Your task to perform on an android device: turn off improve location accuracy Image 0: 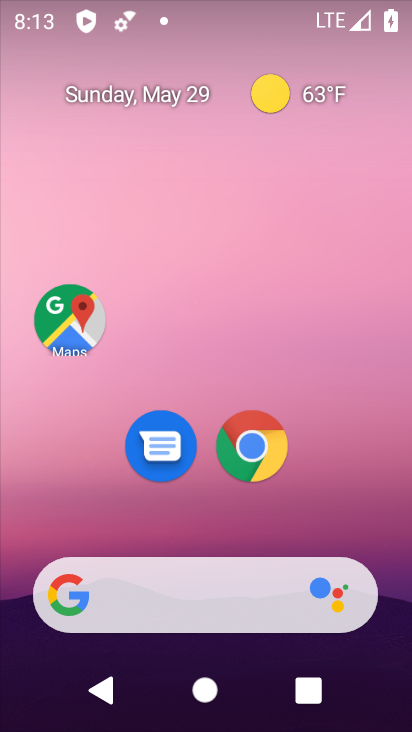
Step 0: drag from (203, 528) to (203, 236)
Your task to perform on an android device: turn off improve location accuracy Image 1: 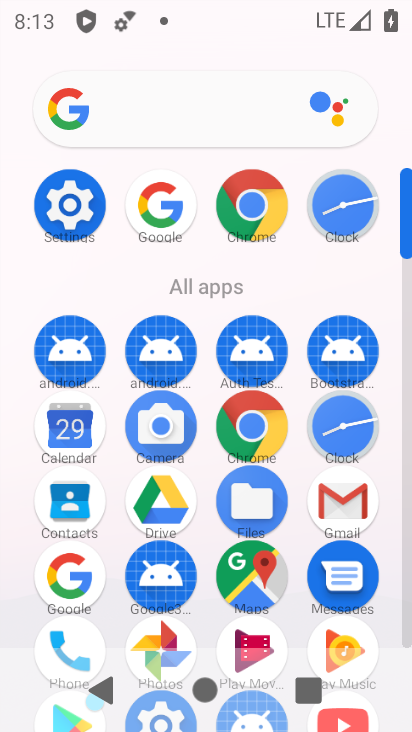
Step 1: click (75, 237)
Your task to perform on an android device: turn off improve location accuracy Image 2: 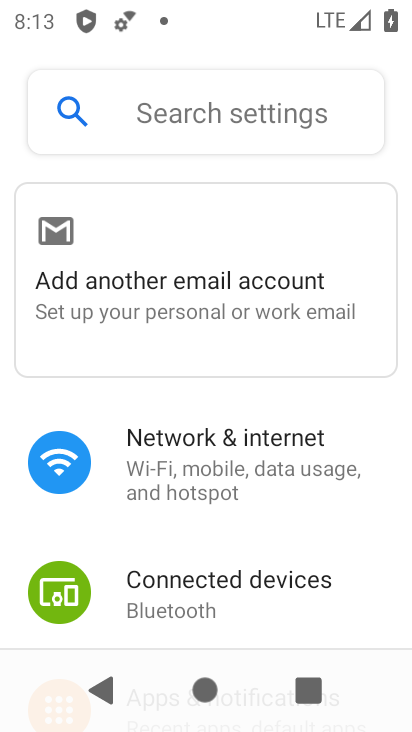
Step 2: drag from (215, 566) to (221, 261)
Your task to perform on an android device: turn off improve location accuracy Image 3: 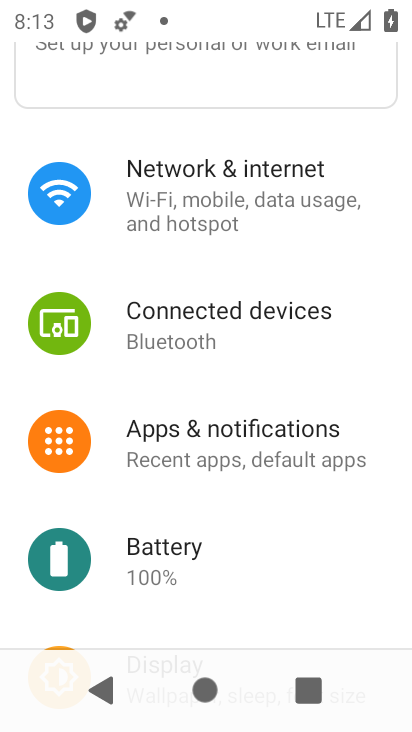
Step 3: drag from (231, 528) to (259, 232)
Your task to perform on an android device: turn off improve location accuracy Image 4: 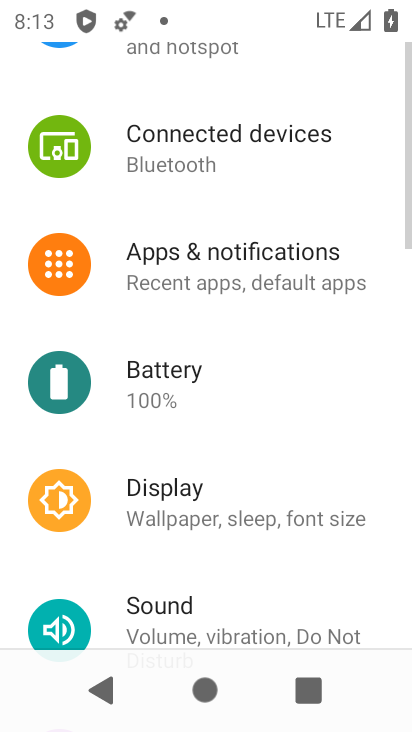
Step 4: drag from (255, 553) to (272, 297)
Your task to perform on an android device: turn off improve location accuracy Image 5: 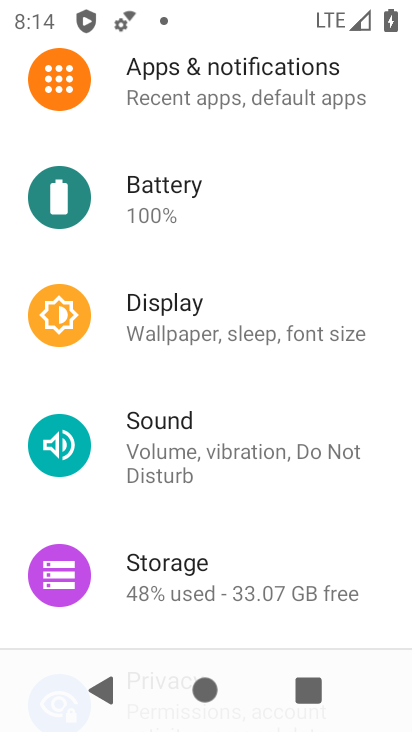
Step 5: drag from (290, 548) to (281, 293)
Your task to perform on an android device: turn off improve location accuracy Image 6: 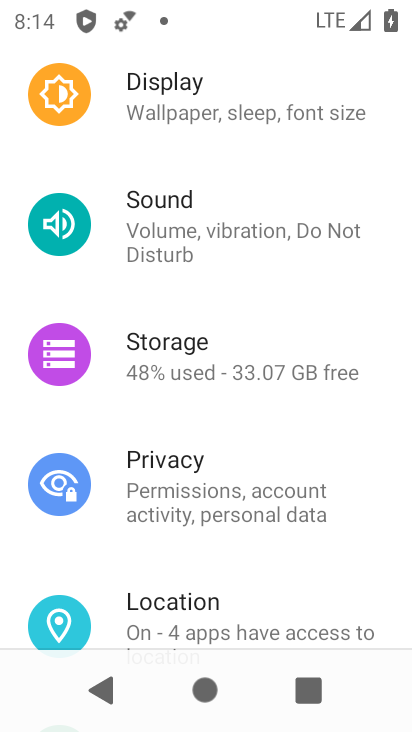
Step 6: drag from (247, 582) to (241, 370)
Your task to perform on an android device: turn off improve location accuracy Image 7: 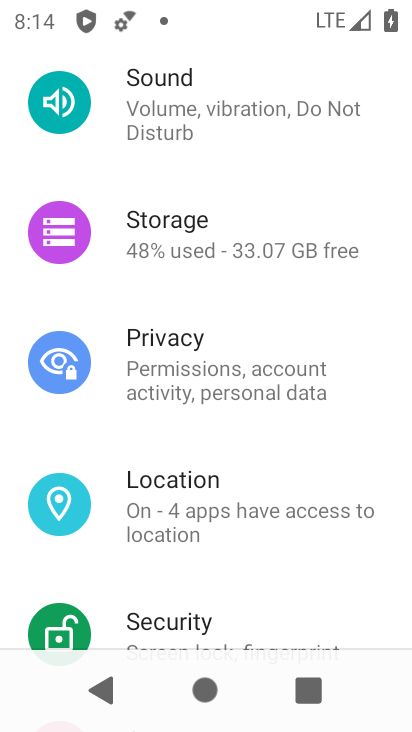
Step 7: click (221, 488)
Your task to perform on an android device: turn off improve location accuracy Image 8: 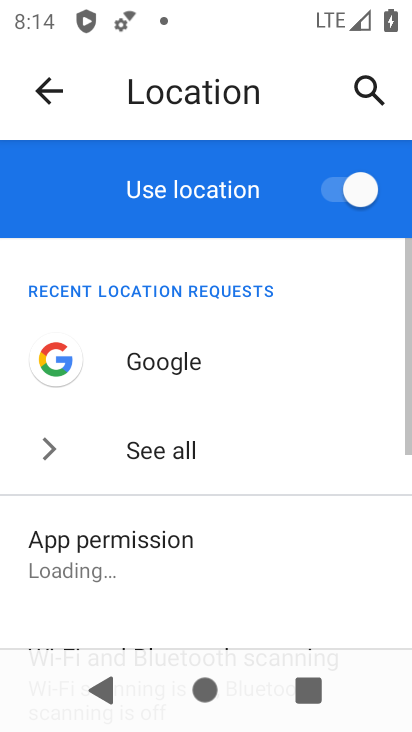
Step 8: drag from (257, 527) to (316, 295)
Your task to perform on an android device: turn off improve location accuracy Image 9: 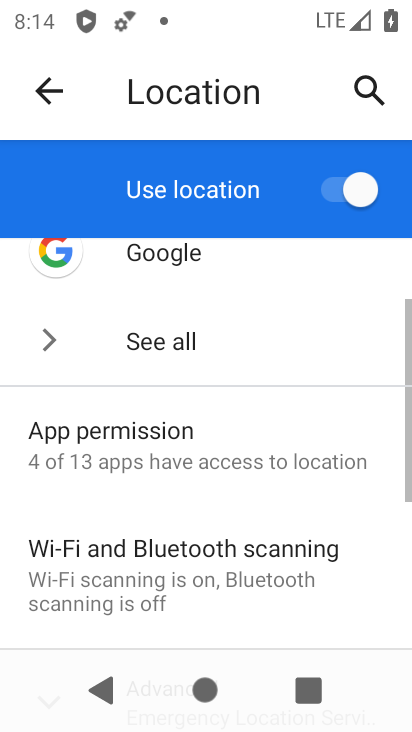
Step 9: drag from (194, 555) to (245, 292)
Your task to perform on an android device: turn off improve location accuracy Image 10: 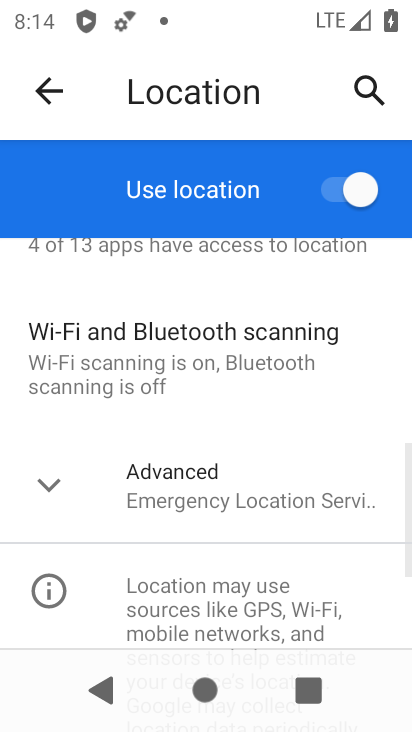
Step 10: click (176, 490)
Your task to perform on an android device: turn off improve location accuracy Image 11: 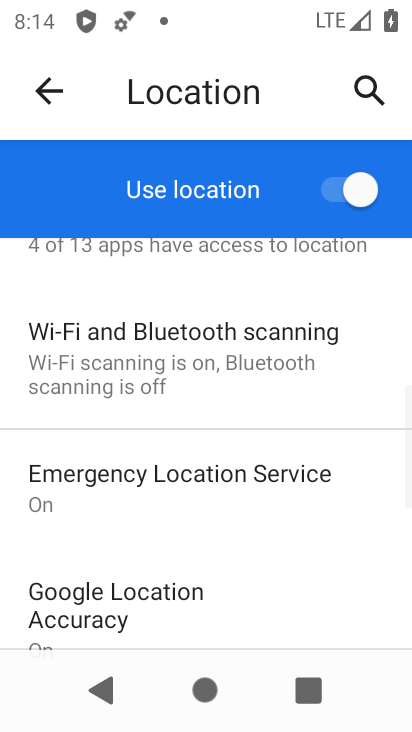
Step 11: drag from (205, 590) to (244, 381)
Your task to perform on an android device: turn off improve location accuracy Image 12: 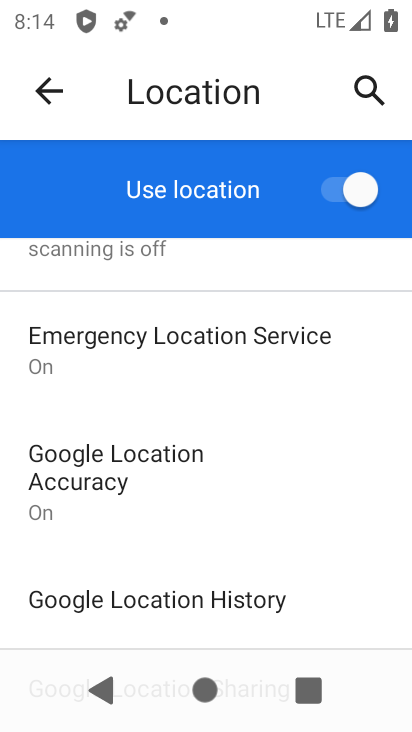
Step 12: drag from (289, 547) to (307, 358)
Your task to perform on an android device: turn off improve location accuracy Image 13: 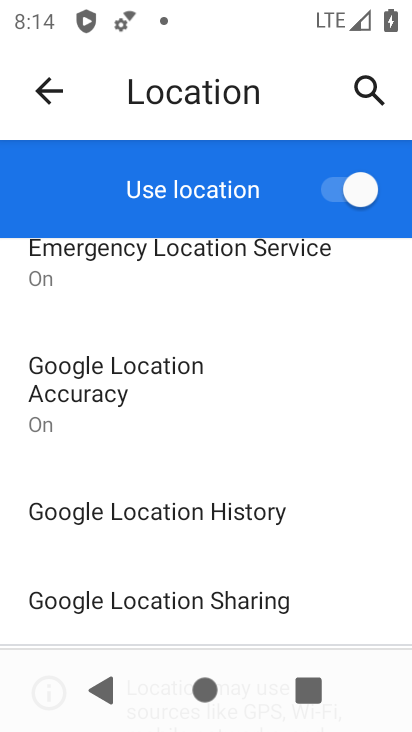
Step 13: drag from (303, 492) to (306, 320)
Your task to perform on an android device: turn off improve location accuracy Image 14: 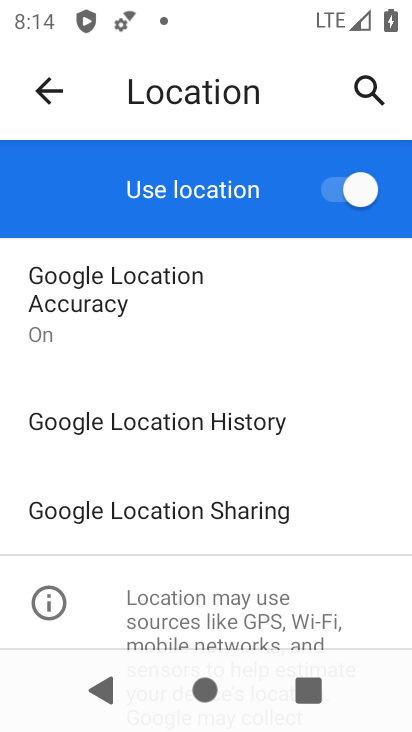
Step 14: drag from (228, 342) to (246, 448)
Your task to perform on an android device: turn off improve location accuracy Image 15: 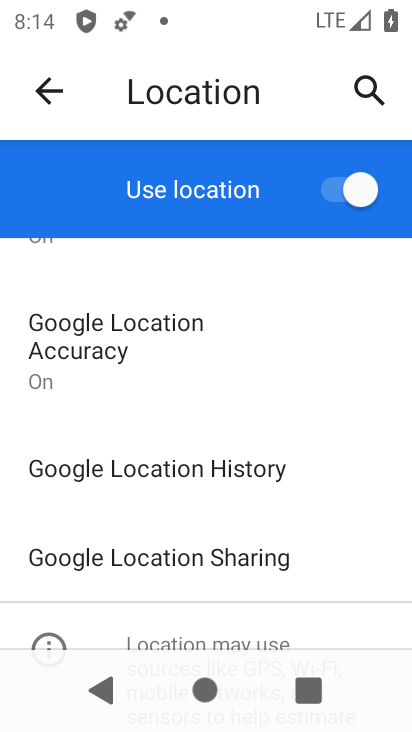
Step 15: click (206, 335)
Your task to perform on an android device: turn off improve location accuracy Image 16: 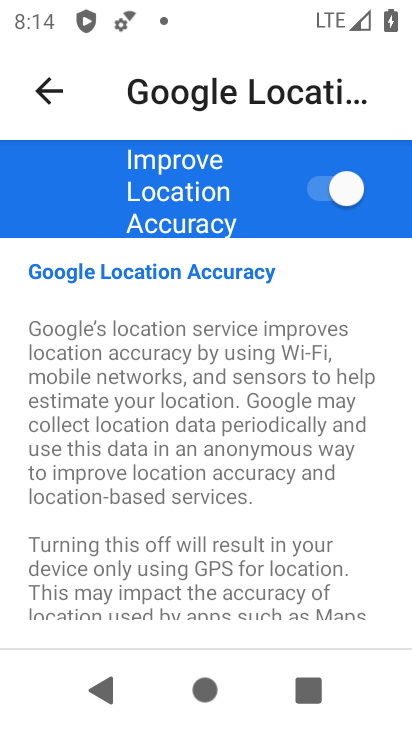
Step 16: click (321, 191)
Your task to perform on an android device: turn off improve location accuracy Image 17: 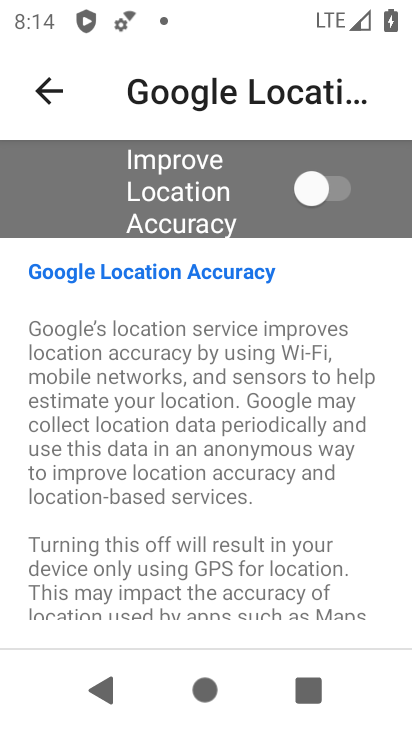
Step 17: task complete